Your task to perform on an android device: Go to sound settings Image 0: 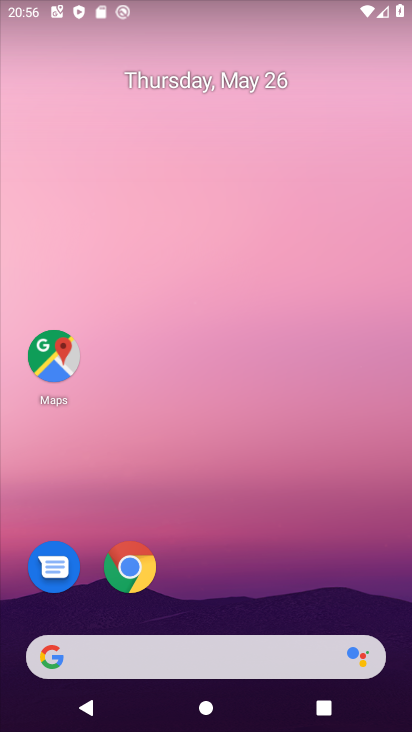
Step 0: drag from (250, 617) to (201, 317)
Your task to perform on an android device: Go to sound settings Image 1: 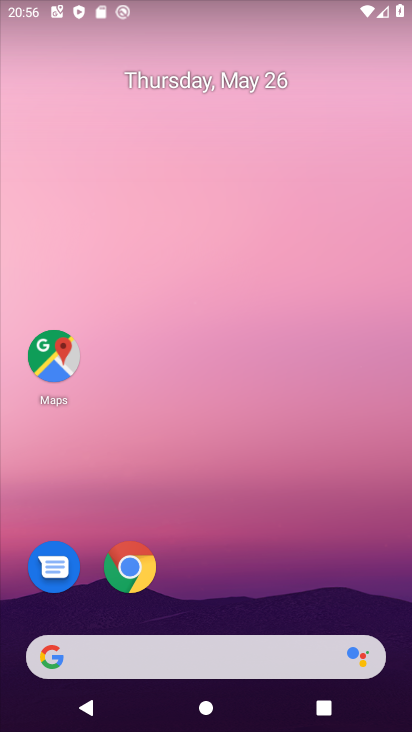
Step 1: drag from (235, 604) to (218, 308)
Your task to perform on an android device: Go to sound settings Image 2: 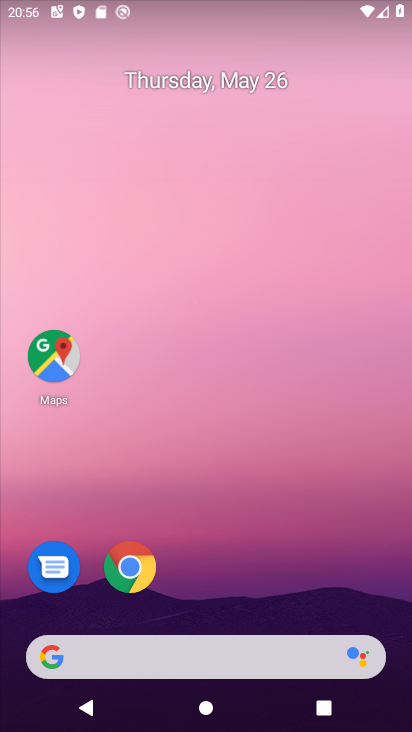
Step 2: drag from (223, 550) to (259, 153)
Your task to perform on an android device: Go to sound settings Image 3: 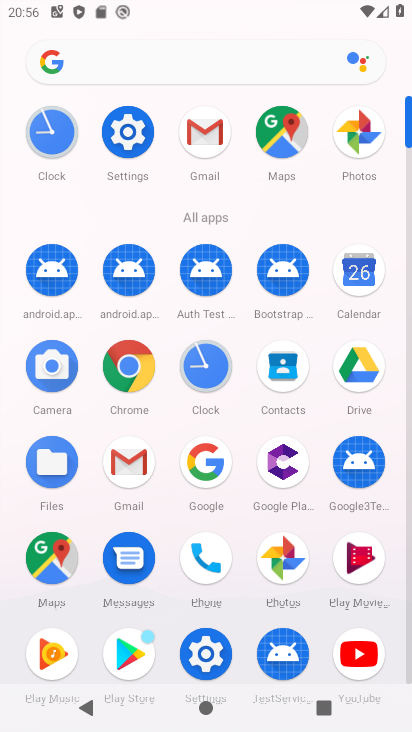
Step 3: click (135, 137)
Your task to perform on an android device: Go to sound settings Image 4: 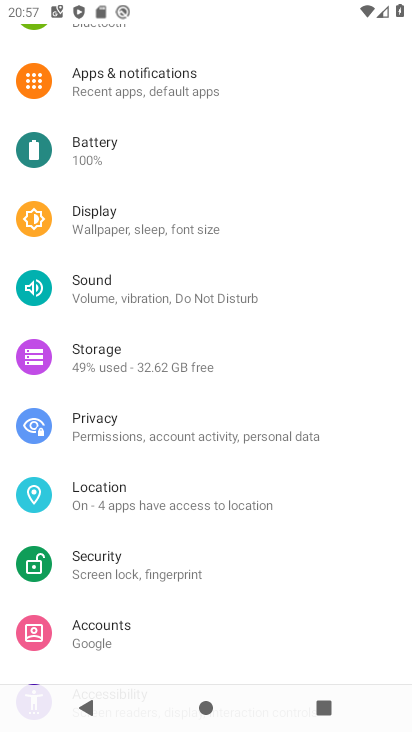
Step 4: click (103, 297)
Your task to perform on an android device: Go to sound settings Image 5: 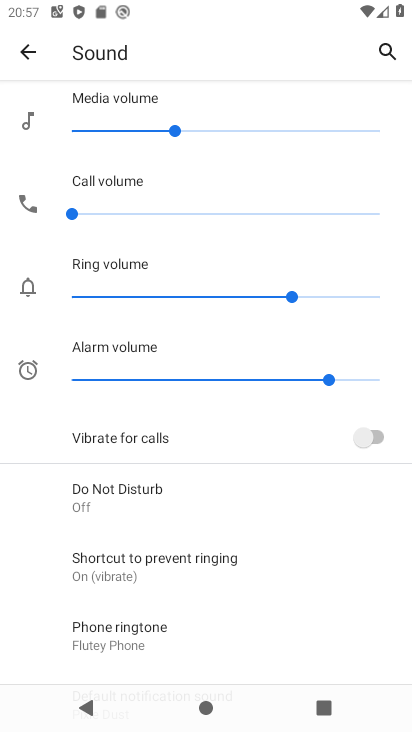
Step 5: task complete